Your task to perform on an android device: toggle wifi Image 0: 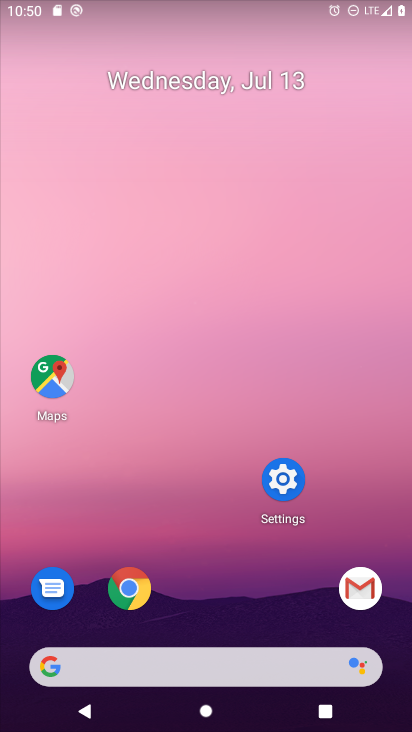
Step 0: click (295, 480)
Your task to perform on an android device: toggle wifi Image 1: 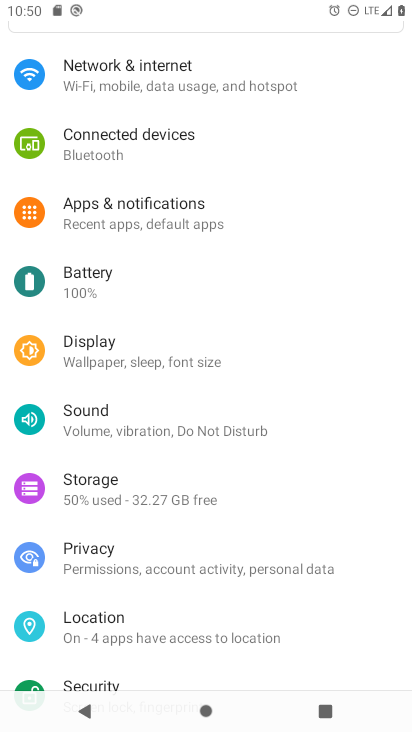
Step 1: click (156, 87)
Your task to perform on an android device: toggle wifi Image 2: 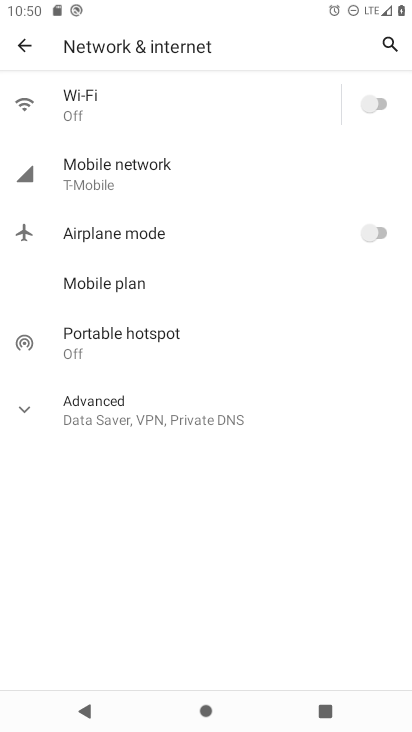
Step 2: click (122, 116)
Your task to perform on an android device: toggle wifi Image 3: 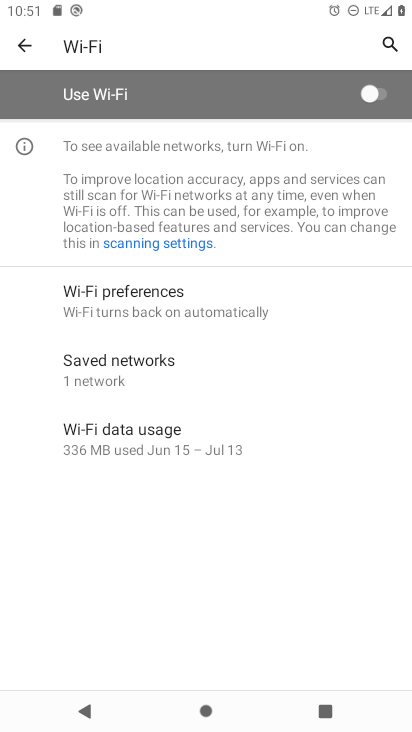
Step 3: task complete